Your task to perform on an android device: turn off picture-in-picture Image 0: 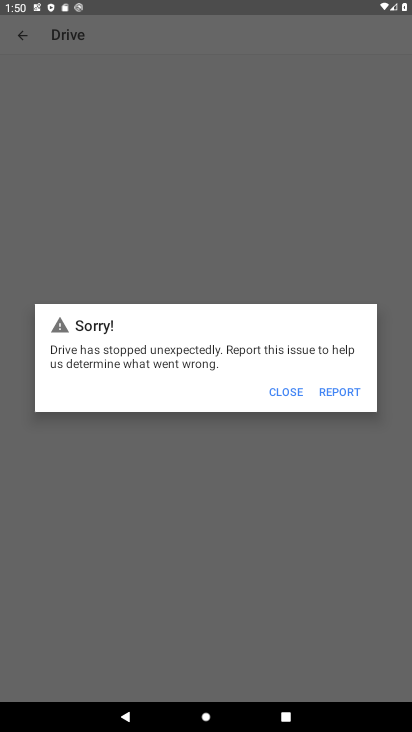
Step 0: press home button
Your task to perform on an android device: turn off picture-in-picture Image 1: 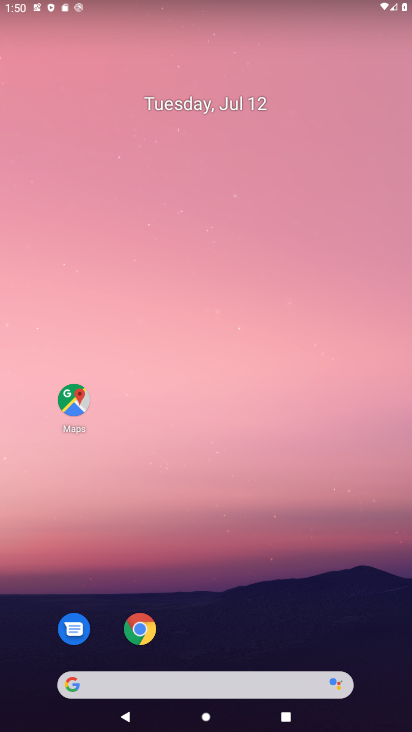
Step 1: drag from (282, 630) to (290, 175)
Your task to perform on an android device: turn off picture-in-picture Image 2: 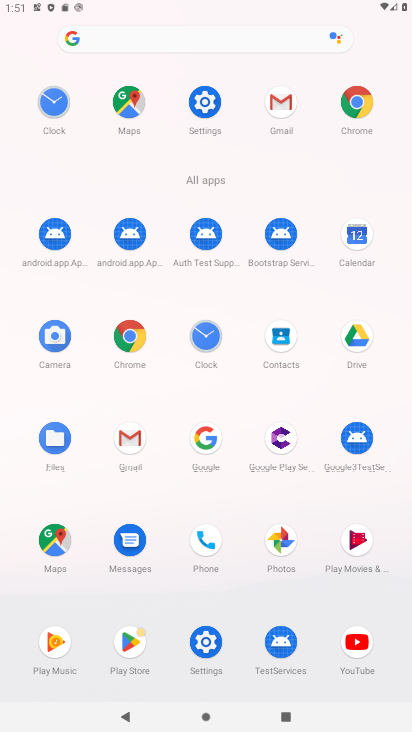
Step 2: click (364, 101)
Your task to perform on an android device: turn off picture-in-picture Image 3: 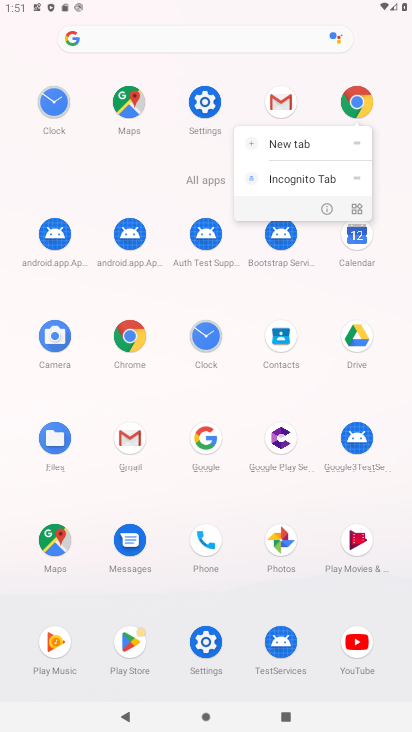
Step 3: click (325, 207)
Your task to perform on an android device: turn off picture-in-picture Image 4: 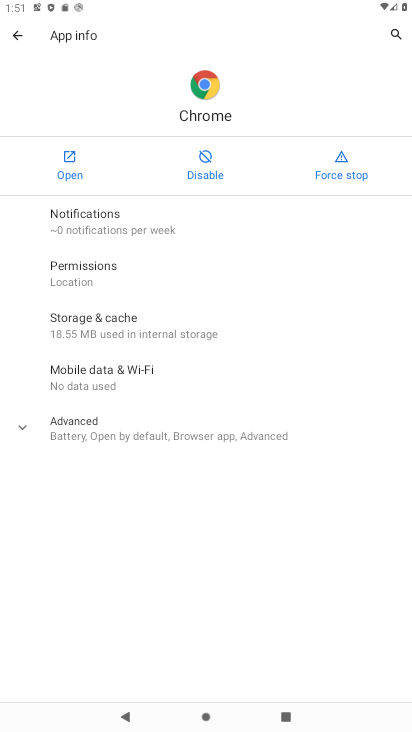
Step 4: click (171, 433)
Your task to perform on an android device: turn off picture-in-picture Image 5: 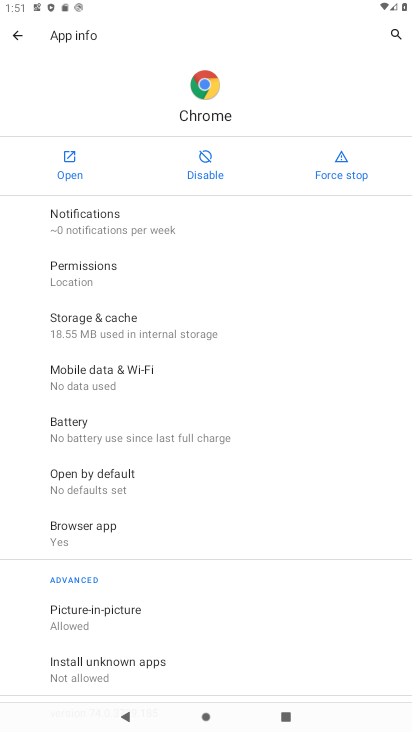
Step 5: click (153, 608)
Your task to perform on an android device: turn off picture-in-picture Image 6: 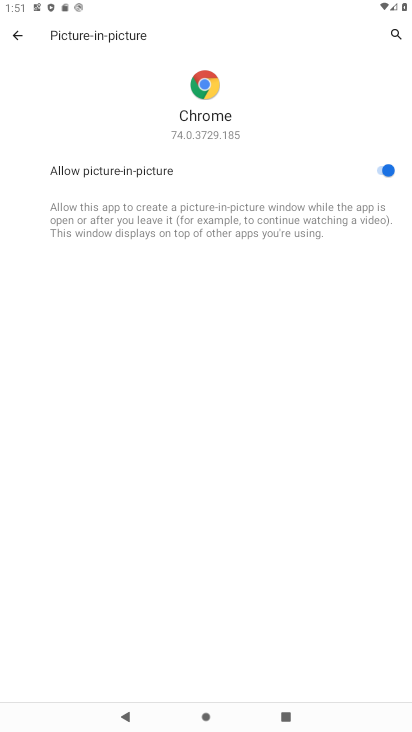
Step 6: click (378, 175)
Your task to perform on an android device: turn off picture-in-picture Image 7: 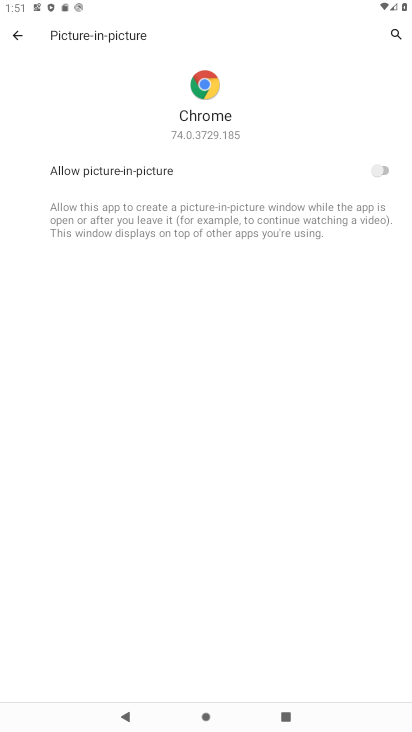
Step 7: task complete